Your task to perform on an android device: Go to network settings Image 0: 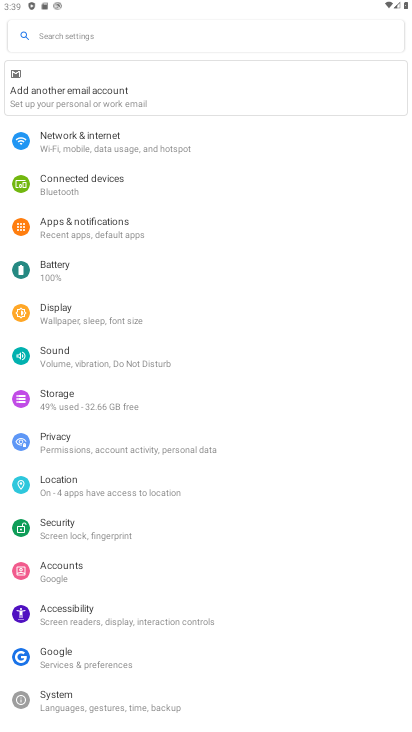
Step 0: click (69, 144)
Your task to perform on an android device: Go to network settings Image 1: 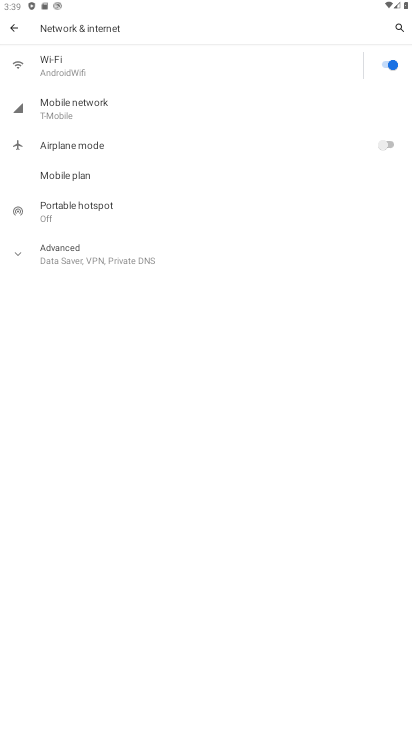
Step 1: click (55, 115)
Your task to perform on an android device: Go to network settings Image 2: 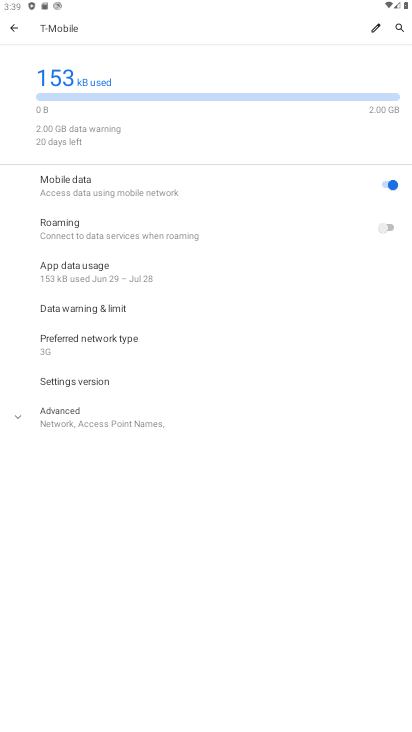
Step 2: click (19, 417)
Your task to perform on an android device: Go to network settings Image 3: 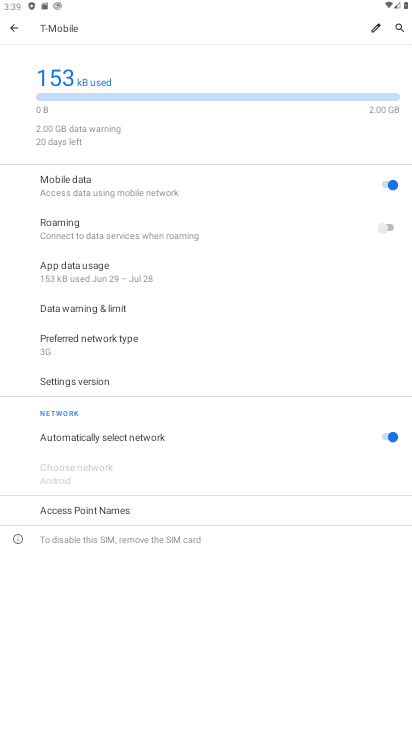
Step 3: task complete